Your task to perform on an android device: add a contact Image 0: 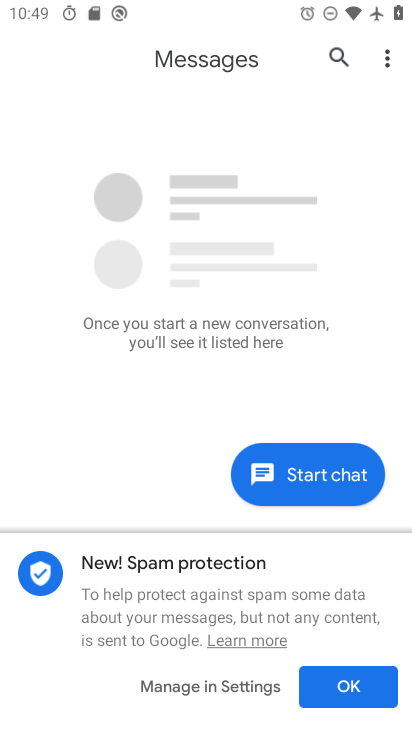
Step 0: press home button
Your task to perform on an android device: add a contact Image 1: 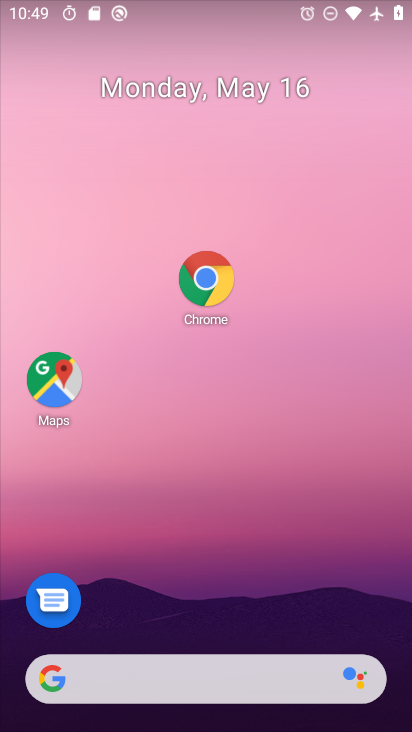
Step 1: drag from (214, 678) to (371, 280)
Your task to perform on an android device: add a contact Image 2: 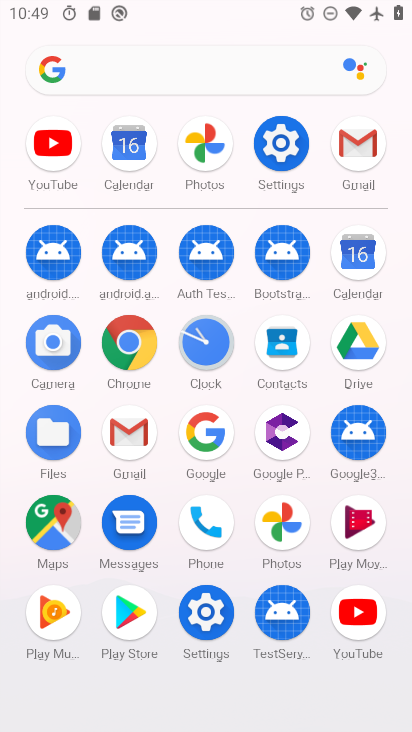
Step 2: click (267, 345)
Your task to perform on an android device: add a contact Image 3: 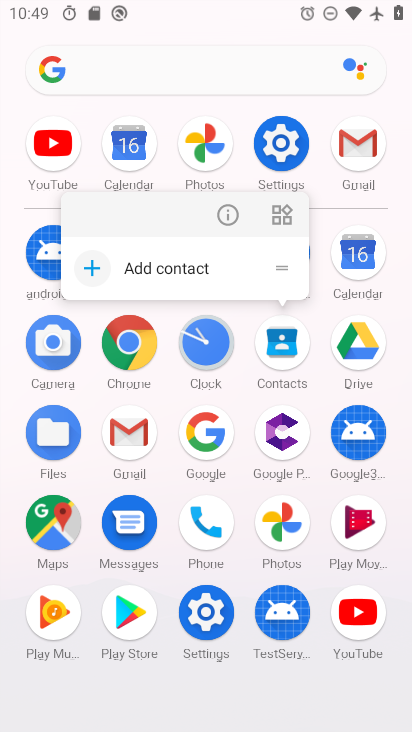
Step 3: click (278, 349)
Your task to perform on an android device: add a contact Image 4: 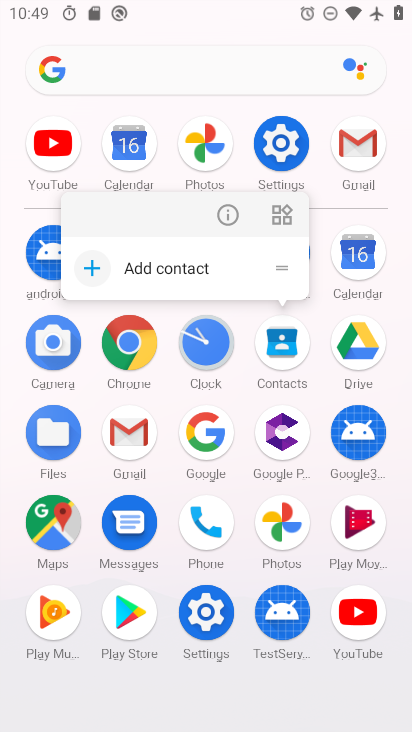
Step 4: click (278, 350)
Your task to perform on an android device: add a contact Image 5: 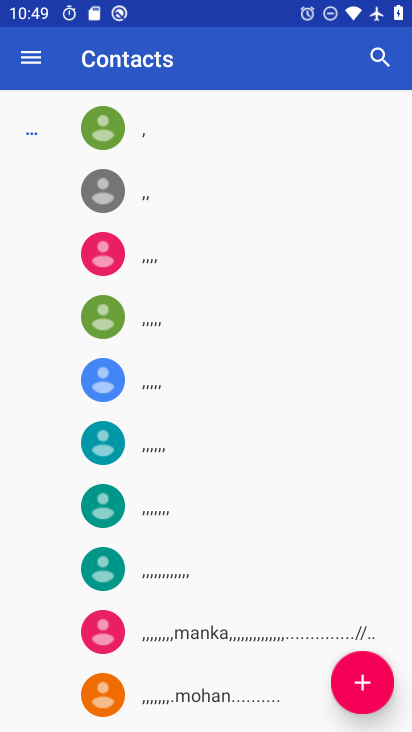
Step 5: click (350, 685)
Your task to perform on an android device: add a contact Image 6: 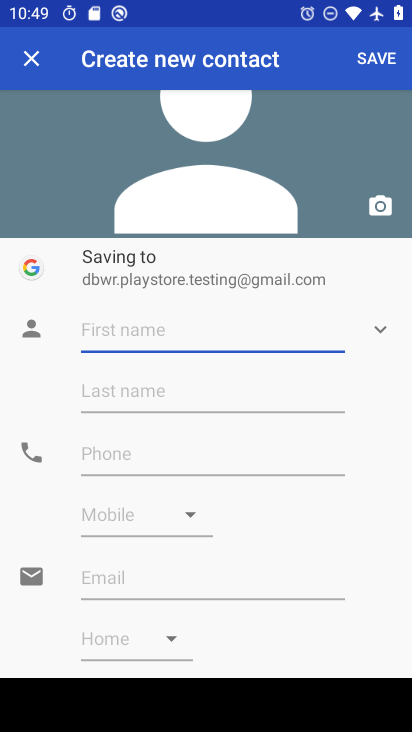
Step 6: click (202, 327)
Your task to perform on an android device: add a contact Image 7: 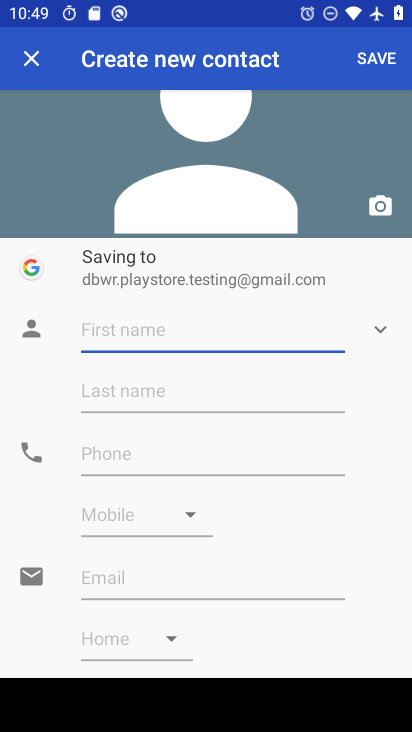
Step 7: type "dewrrr"
Your task to perform on an android device: add a contact Image 8: 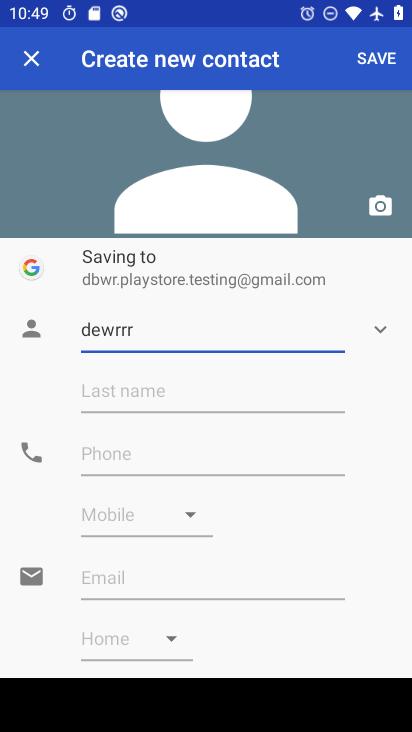
Step 8: click (172, 465)
Your task to perform on an android device: add a contact Image 9: 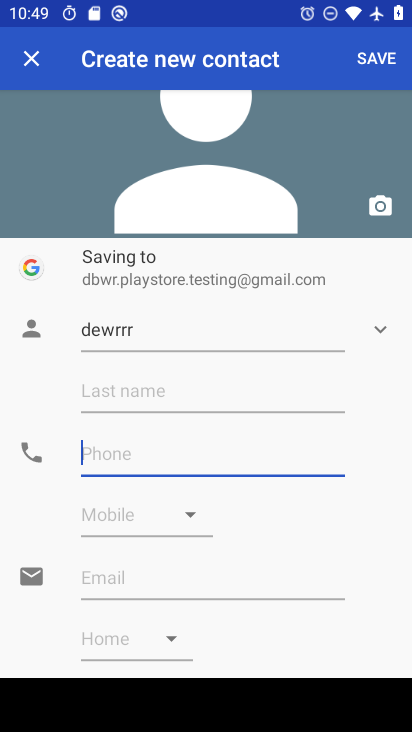
Step 9: type "433666888"
Your task to perform on an android device: add a contact Image 10: 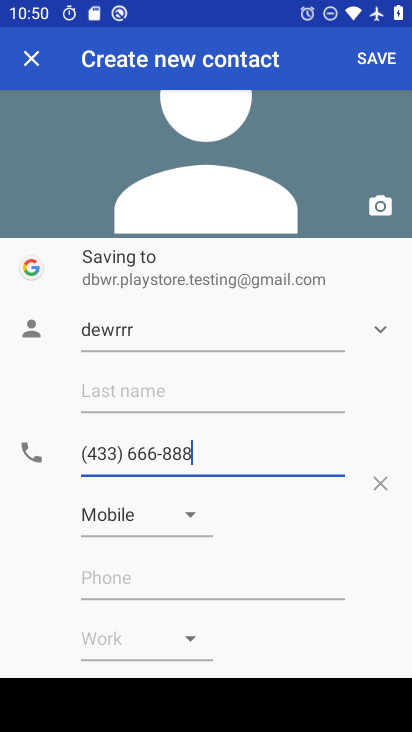
Step 10: click (363, 67)
Your task to perform on an android device: add a contact Image 11: 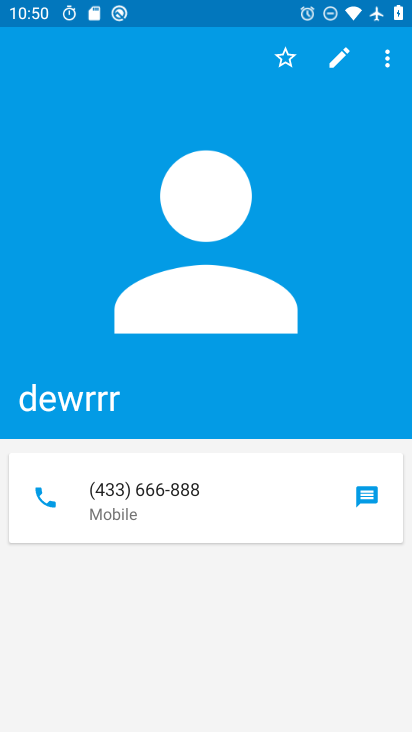
Step 11: task complete